Your task to perform on an android device: Open the web browser Image 0: 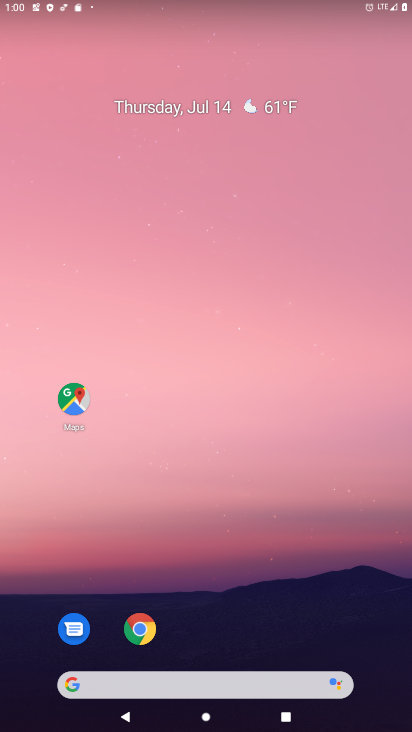
Step 0: click (139, 628)
Your task to perform on an android device: Open the web browser Image 1: 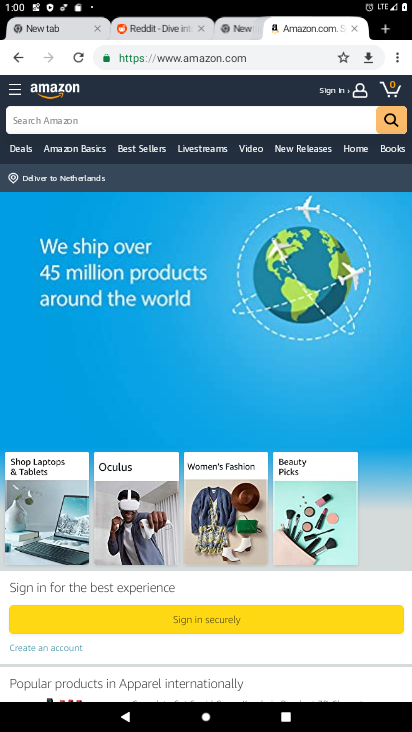
Step 1: task complete